Your task to perform on an android device: turn on improve location accuracy Image 0: 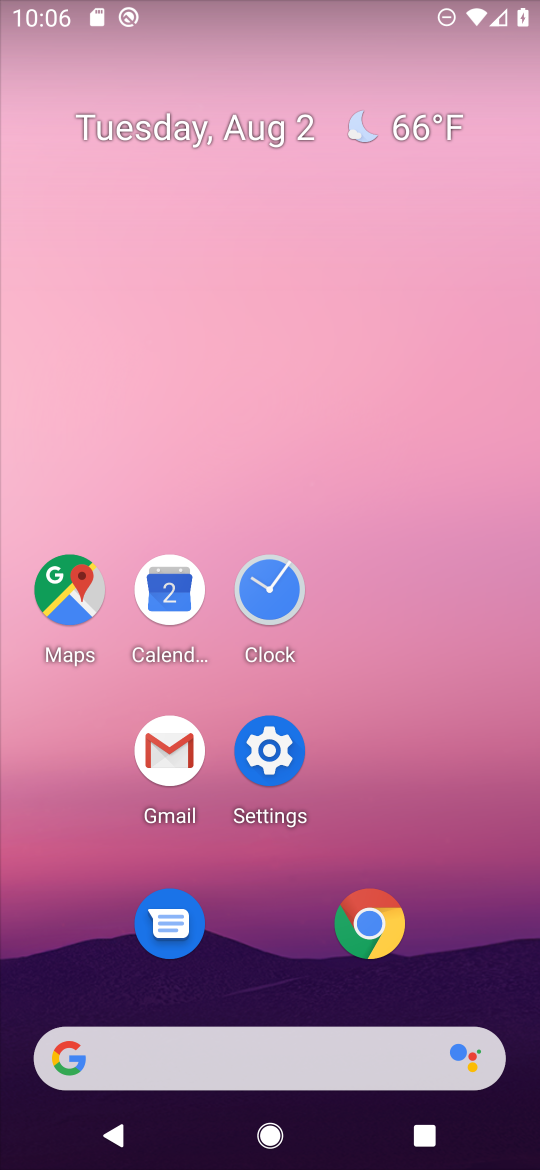
Step 0: click (278, 747)
Your task to perform on an android device: turn on improve location accuracy Image 1: 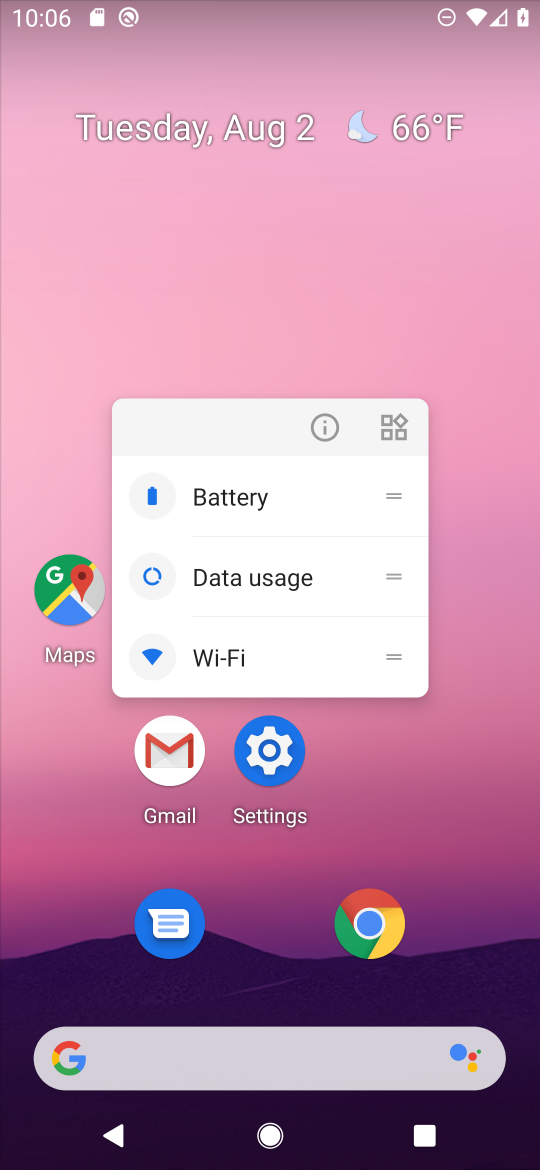
Step 1: click (264, 748)
Your task to perform on an android device: turn on improve location accuracy Image 2: 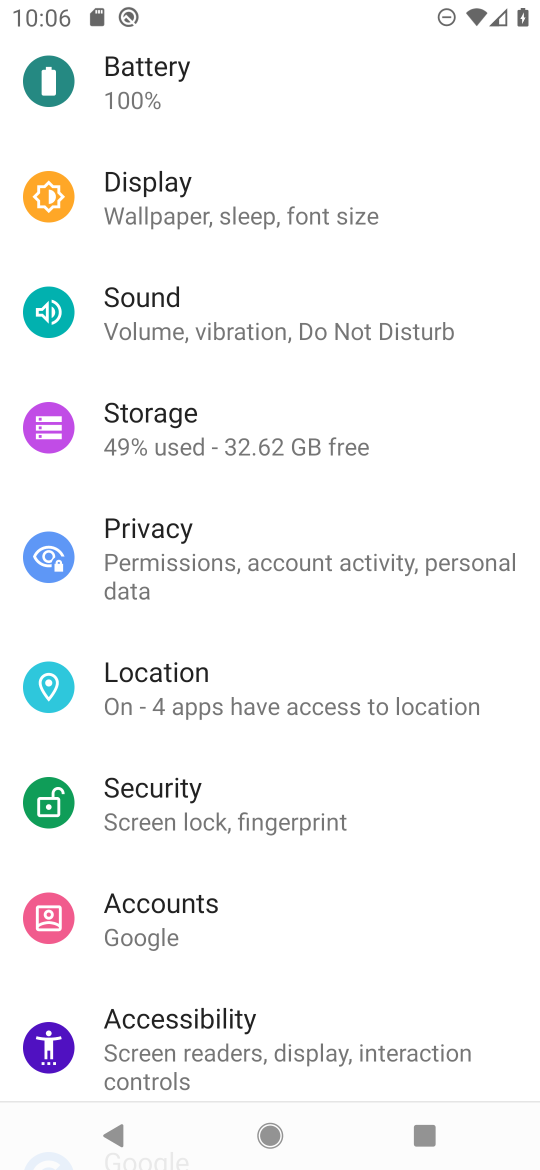
Step 2: drag from (355, 981) to (349, 921)
Your task to perform on an android device: turn on improve location accuracy Image 3: 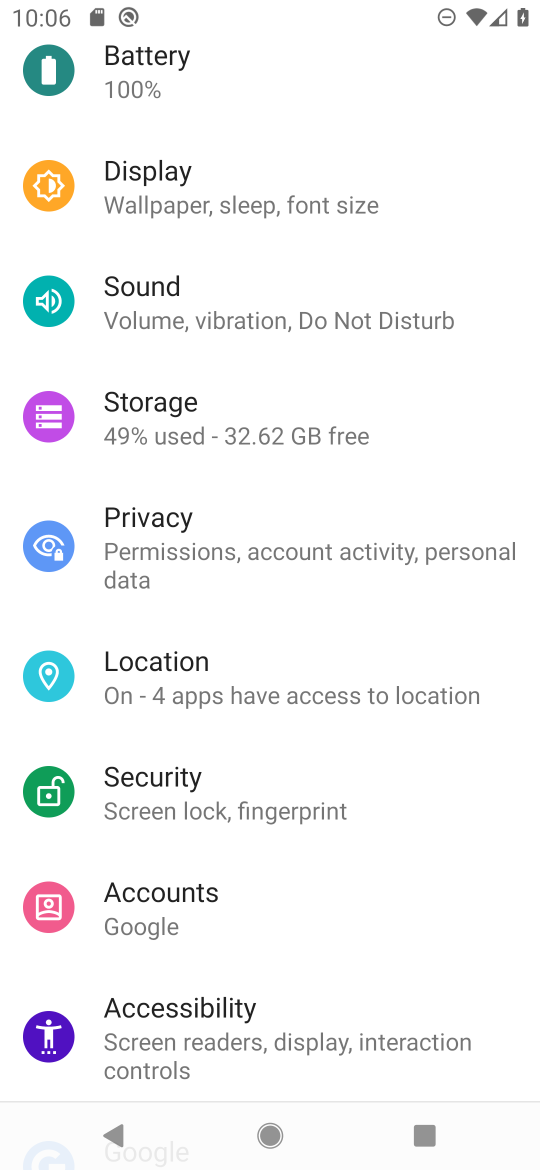
Step 3: click (138, 669)
Your task to perform on an android device: turn on improve location accuracy Image 4: 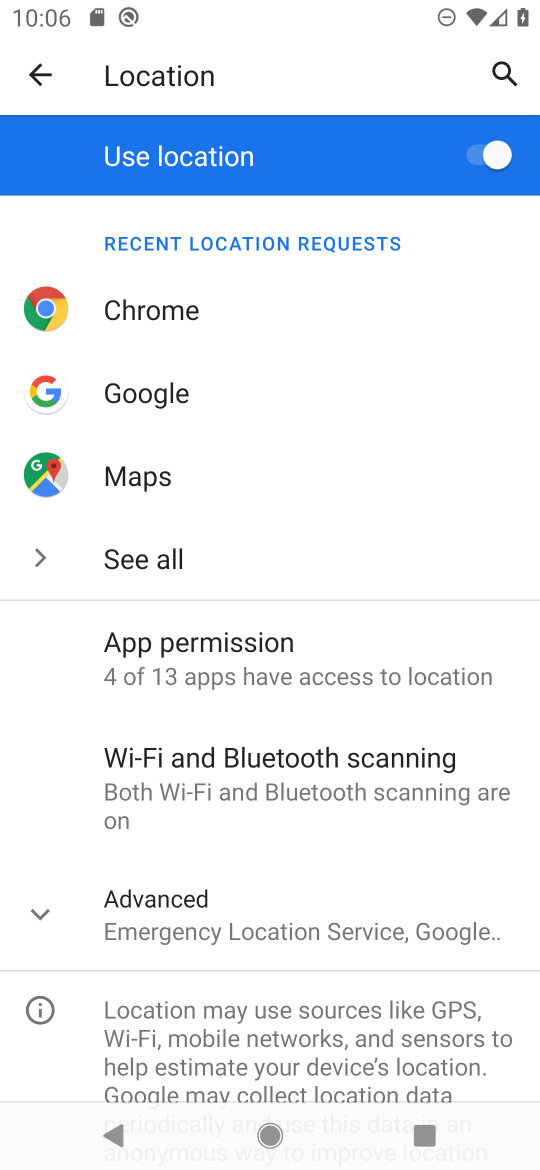
Step 4: click (40, 930)
Your task to perform on an android device: turn on improve location accuracy Image 5: 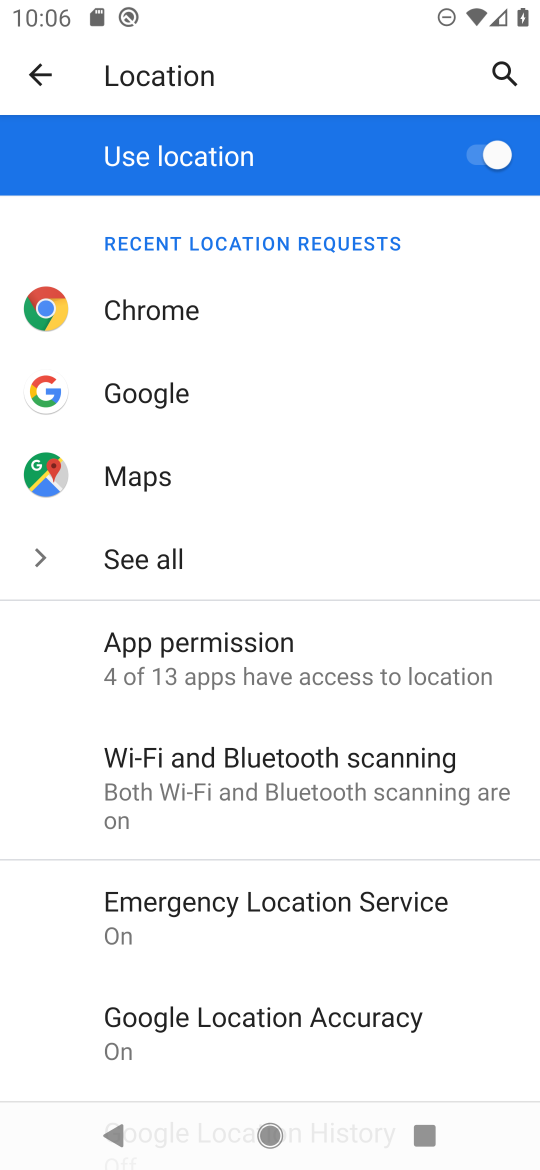
Step 5: click (256, 1019)
Your task to perform on an android device: turn on improve location accuracy Image 6: 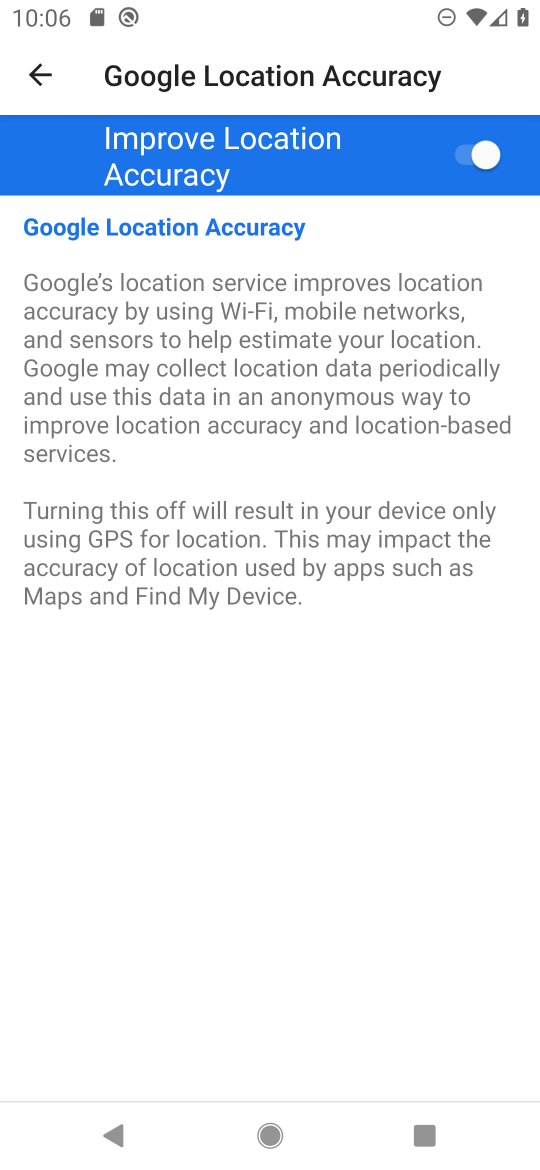
Step 6: task complete